Your task to perform on an android device: Show the shopping cart on ebay. Search for "apple airpods" on ebay, select the first entry, and add it to the cart. Image 0: 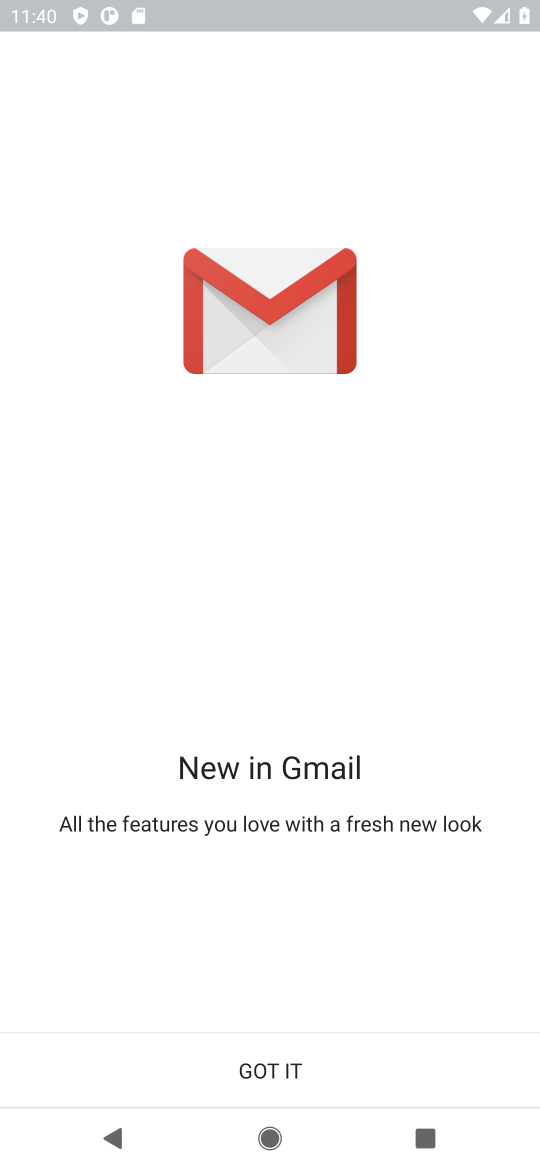
Step 0: press home button
Your task to perform on an android device: Show the shopping cart on ebay. Search for "apple airpods" on ebay, select the first entry, and add it to the cart. Image 1: 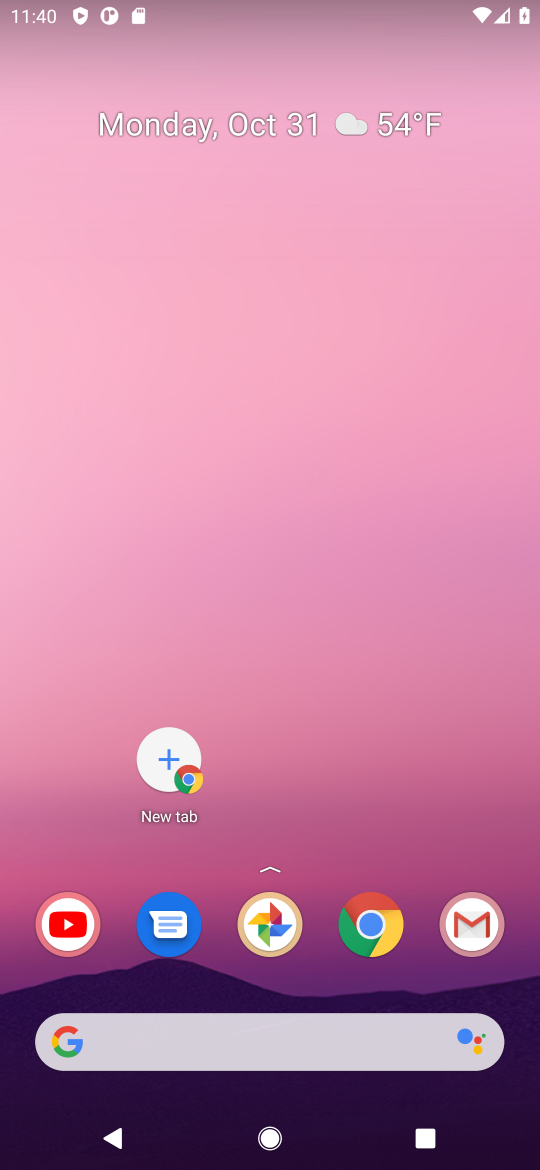
Step 1: click (373, 924)
Your task to perform on an android device: Show the shopping cart on ebay. Search for "apple airpods" on ebay, select the first entry, and add it to the cart. Image 2: 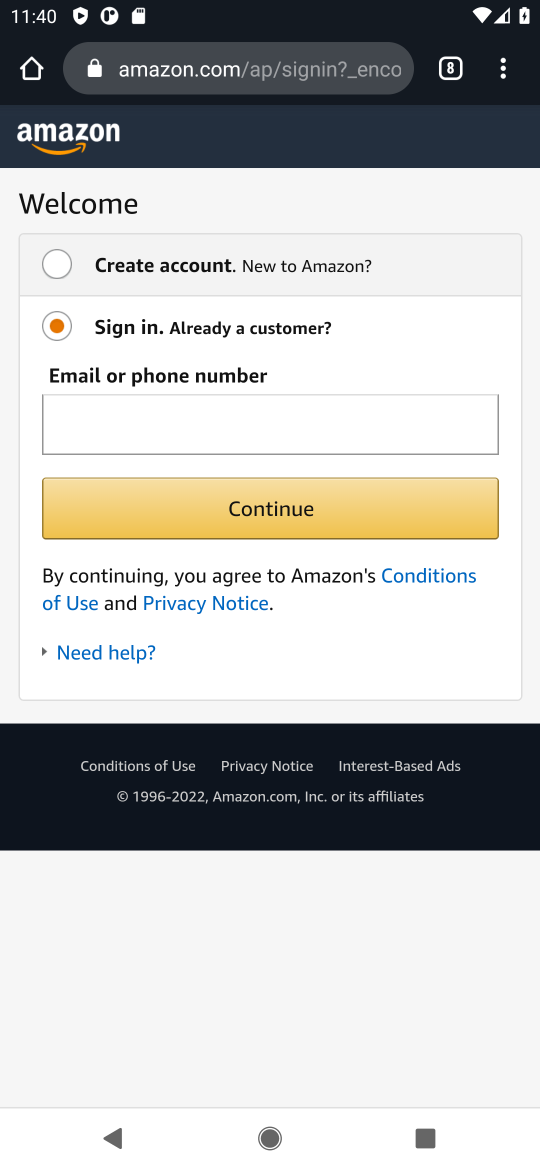
Step 2: click (163, 65)
Your task to perform on an android device: Show the shopping cart on ebay. Search for "apple airpods" on ebay, select the first entry, and add it to the cart. Image 3: 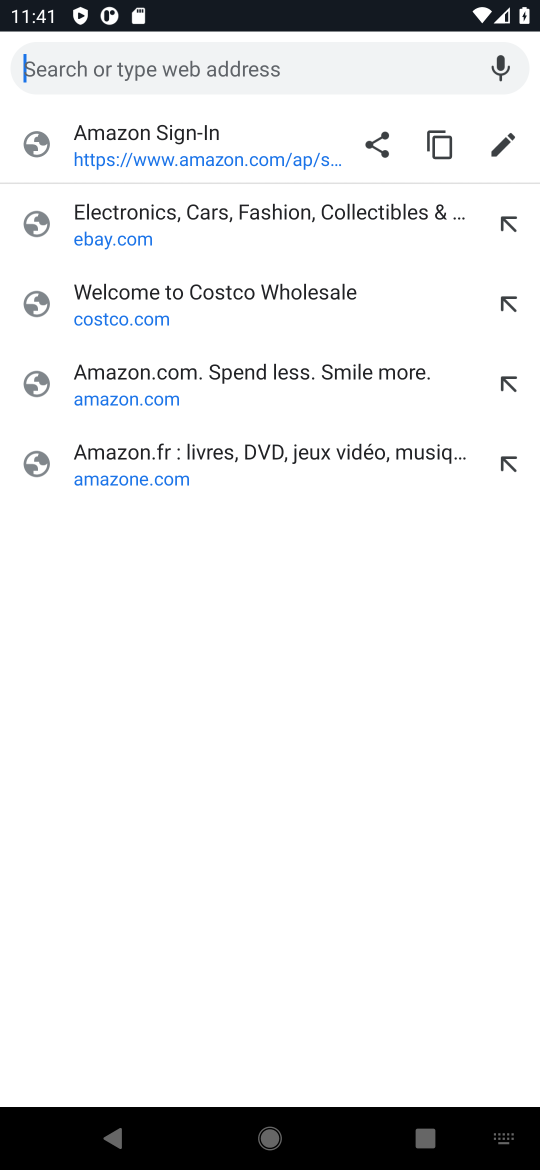
Step 3: type "ebay"
Your task to perform on an android device: Show the shopping cart on ebay. Search for "apple airpods" on ebay, select the first entry, and add it to the cart. Image 4: 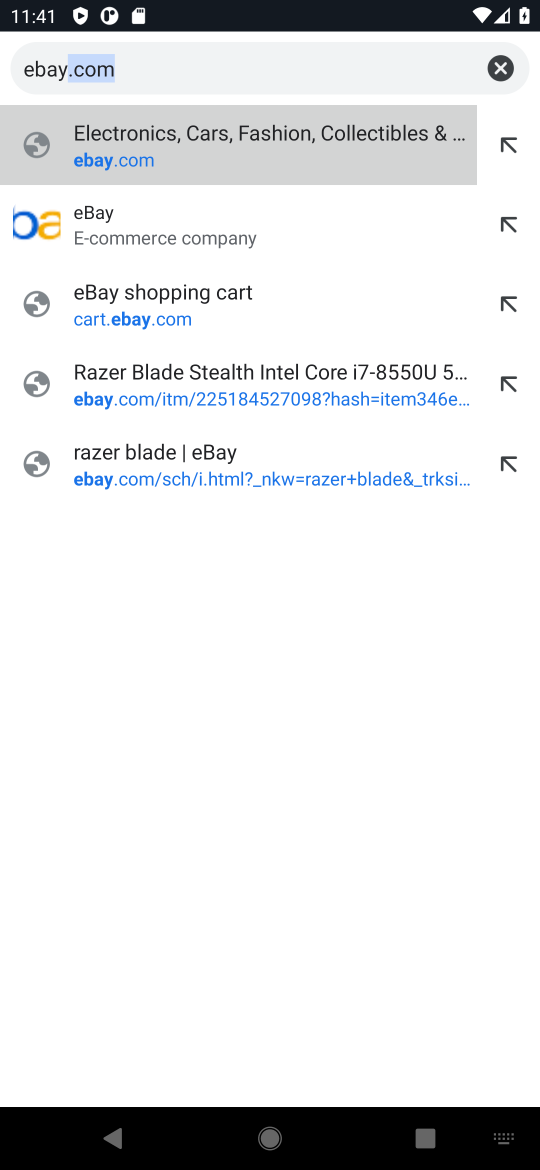
Step 4: type ""
Your task to perform on an android device: Show the shopping cart on ebay. Search for "apple airpods" on ebay, select the first entry, and add it to the cart. Image 5: 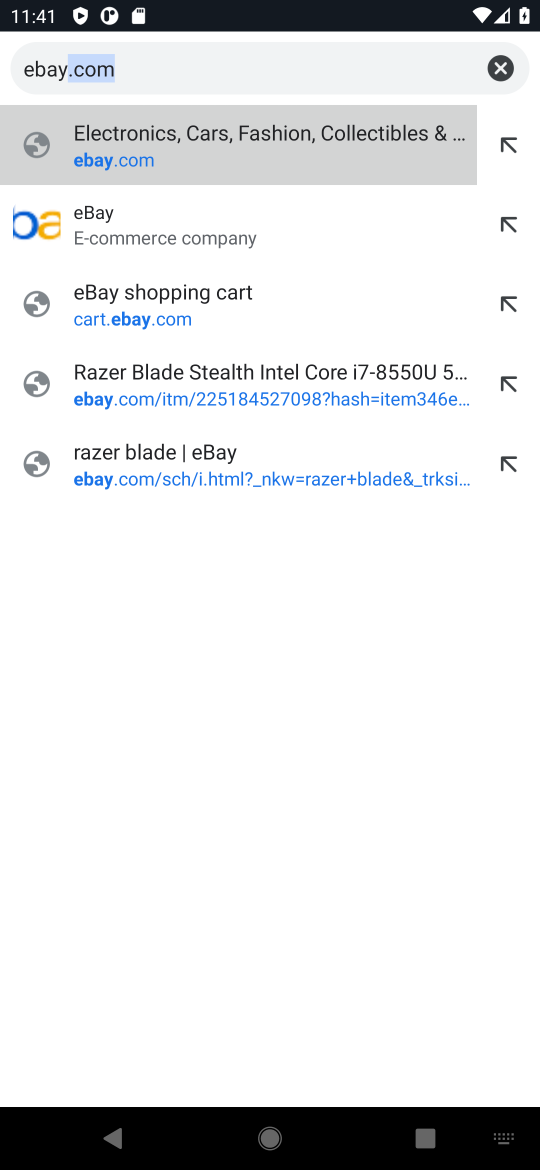
Step 5: click (142, 136)
Your task to perform on an android device: Show the shopping cart on ebay. Search for "apple airpods" on ebay, select the first entry, and add it to the cart. Image 6: 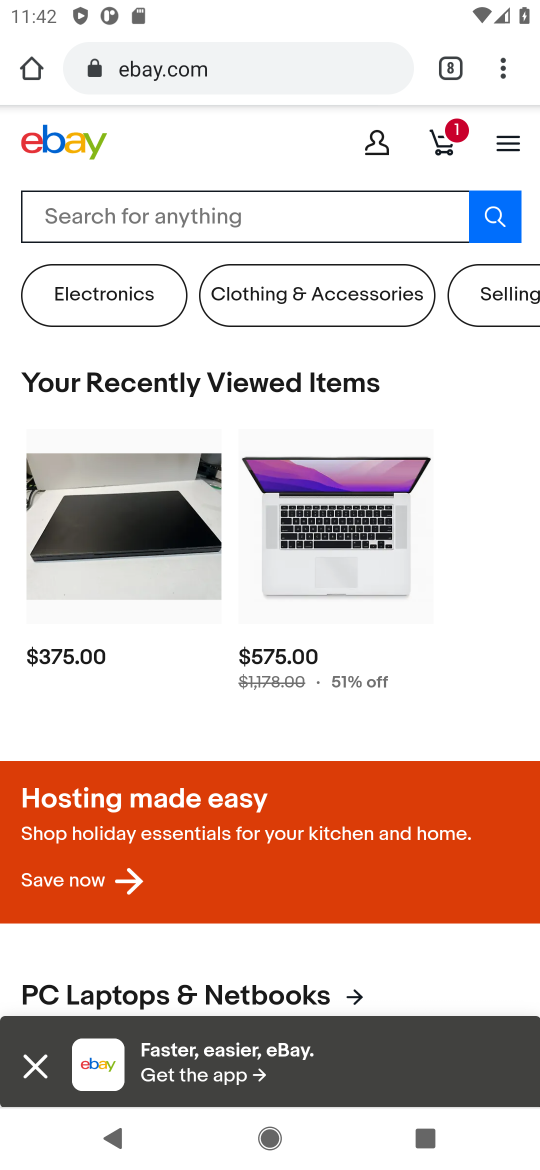
Step 6: click (136, 209)
Your task to perform on an android device: Show the shopping cart on ebay. Search for "apple airpods" on ebay, select the first entry, and add it to the cart. Image 7: 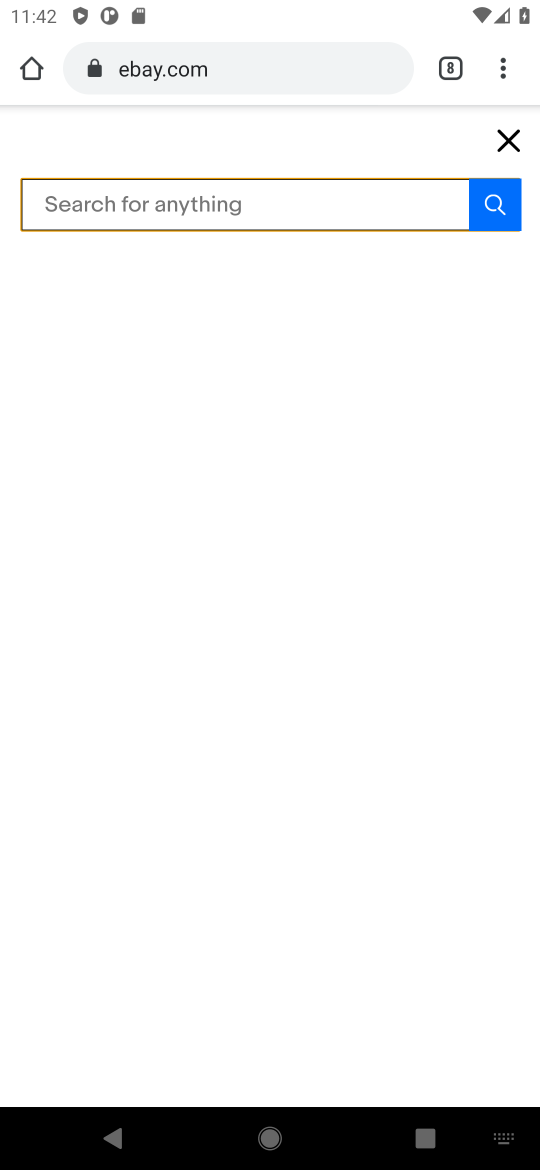
Step 7: type "apple airpods"
Your task to perform on an android device: Show the shopping cart on ebay. Search for "apple airpods" on ebay, select the first entry, and add it to the cart. Image 8: 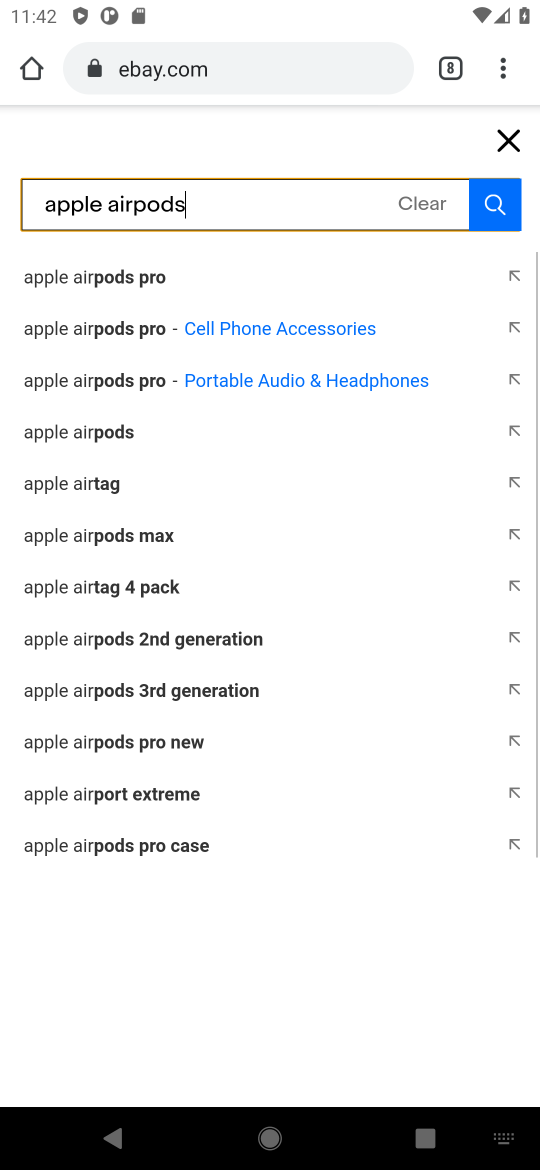
Step 8: type ""
Your task to perform on an android device: Show the shopping cart on ebay. Search for "apple airpods" on ebay, select the first entry, and add it to the cart. Image 9: 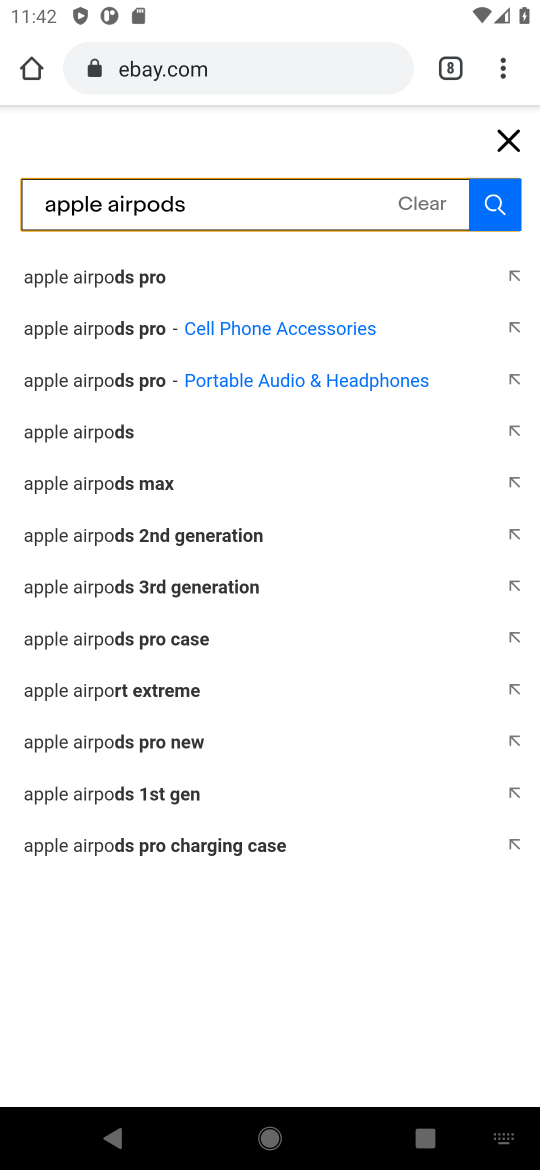
Step 9: click (91, 276)
Your task to perform on an android device: Show the shopping cart on ebay. Search for "apple airpods" on ebay, select the first entry, and add it to the cart. Image 10: 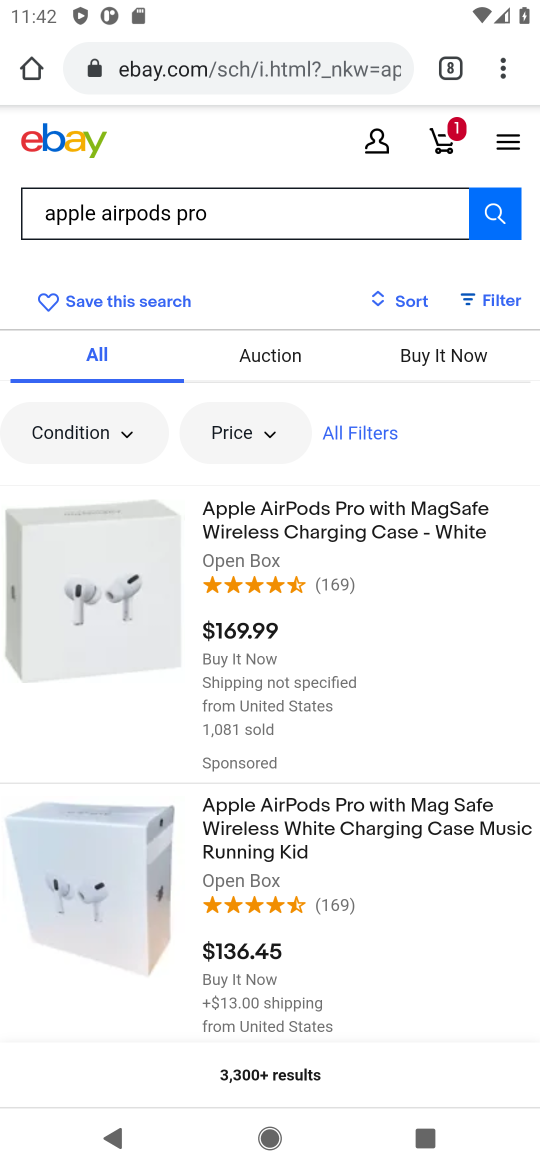
Step 10: click (90, 583)
Your task to perform on an android device: Show the shopping cart on ebay. Search for "apple airpods" on ebay, select the first entry, and add it to the cart. Image 11: 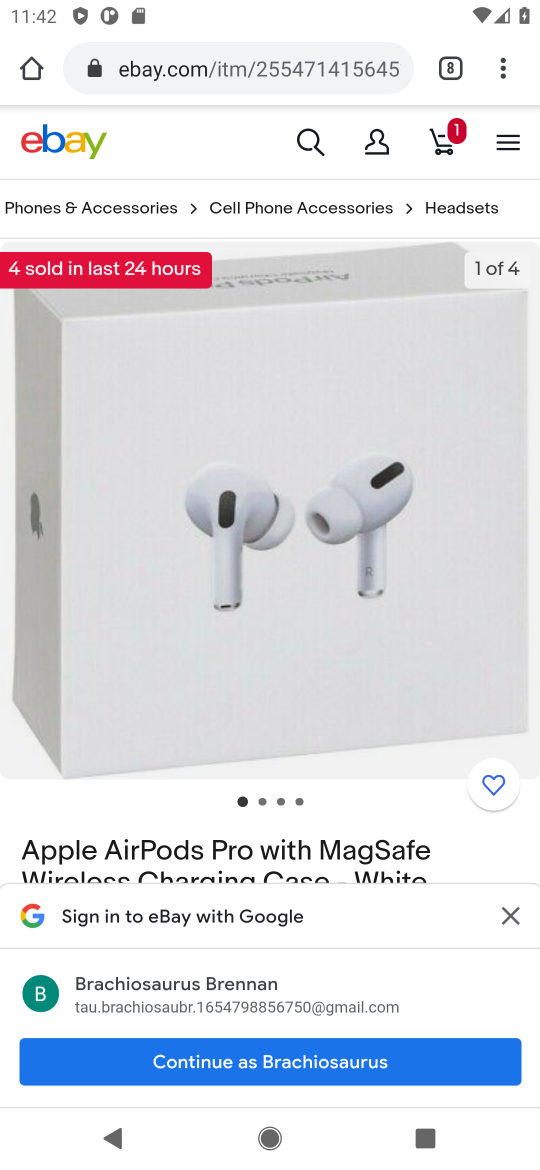
Step 11: drag from (244, 644) to (278, 245)
Your task to perform on an android device: Show the shopping cart on ebay. Search for "apple airpods" on ebay, select the first entry, and add it to the cart. Image 12: 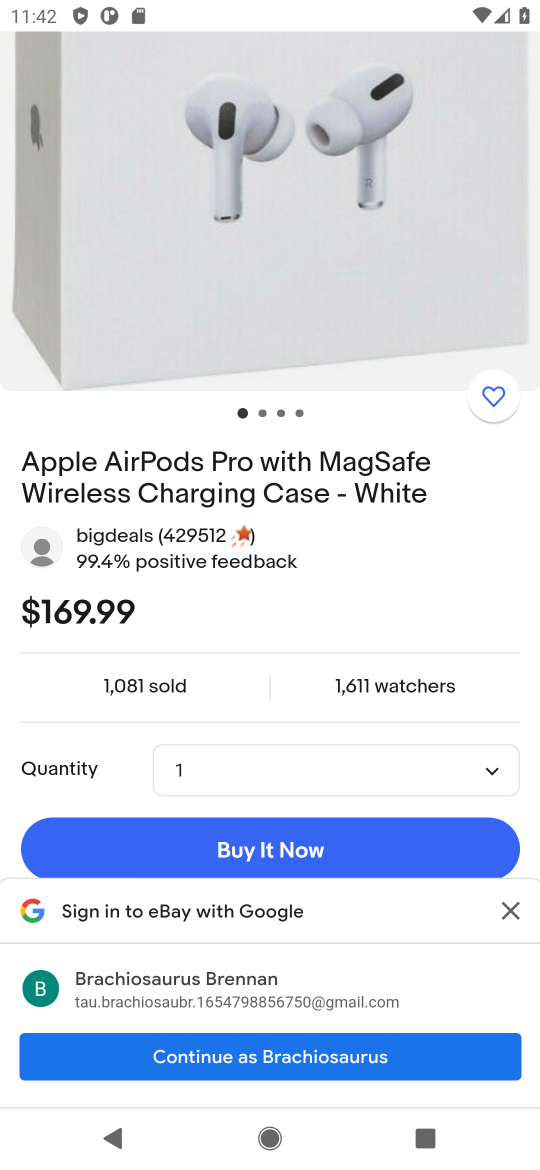
Step 12: drag from (286, 535) to (281, 250)
Your task to perform on an android device: Show the shopping cart on ebay. Search for "apple airpods" on ebay, select the first entry, and add it to the cart. Image 13: 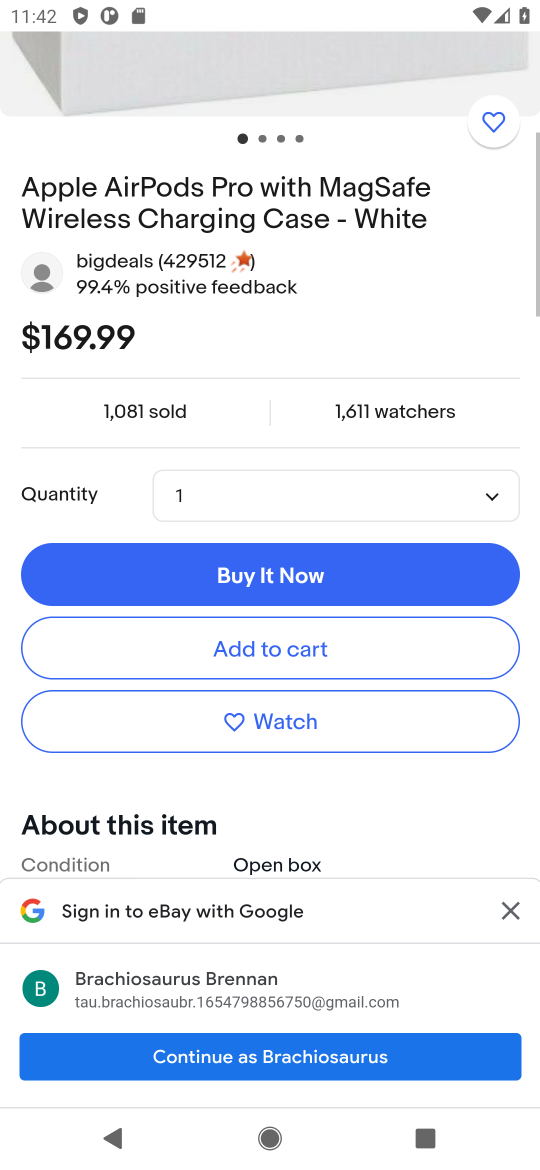
Step 13: drag from (276, 834) to (291, 574)
Your task to perform on an android device: Show the shopping cart on ebay. Search for "apple airpods" on ebay, select the first entry, and add it to the cart. Image 14: 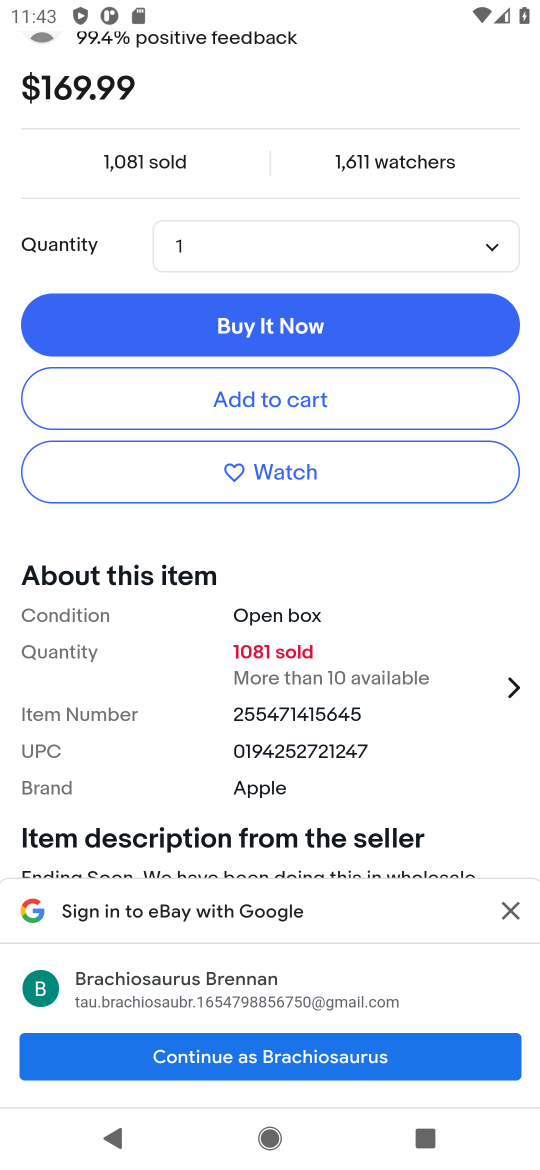
Step 14: click (511, 908)
Your task to perform on an android device: Show the shopping cart on ebay. Search for "apple airpods" on ebay, select the first entry, and add it to the cart. Image 15: 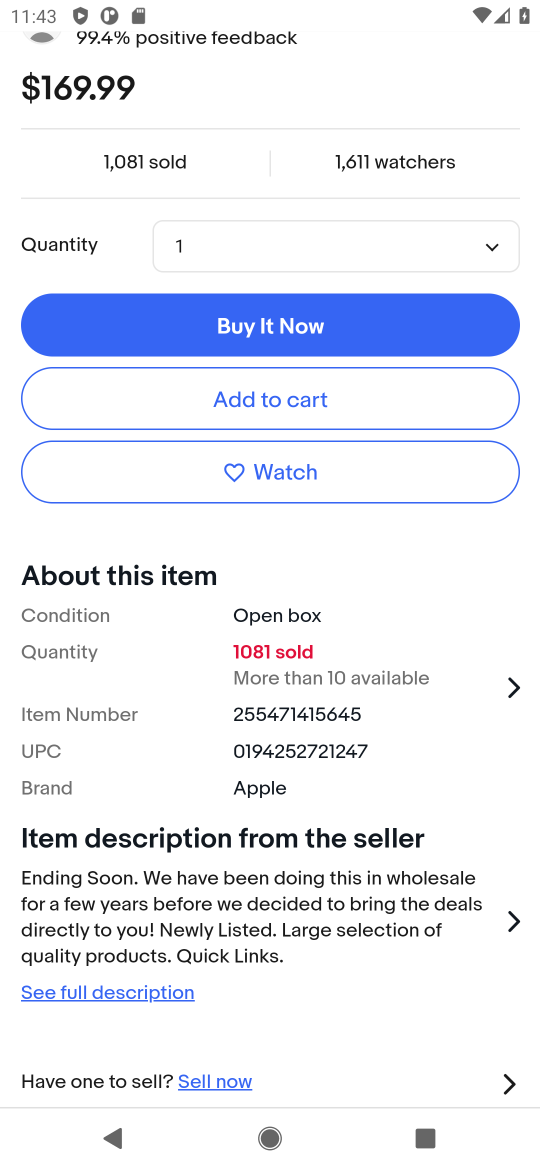
Step 15: click (185, 392)
Your task to perform on an android device: Show the shopping cart on ebay. Search for "apple airpods" on ebay, select the first entry, and add it to the cart. Image 16: 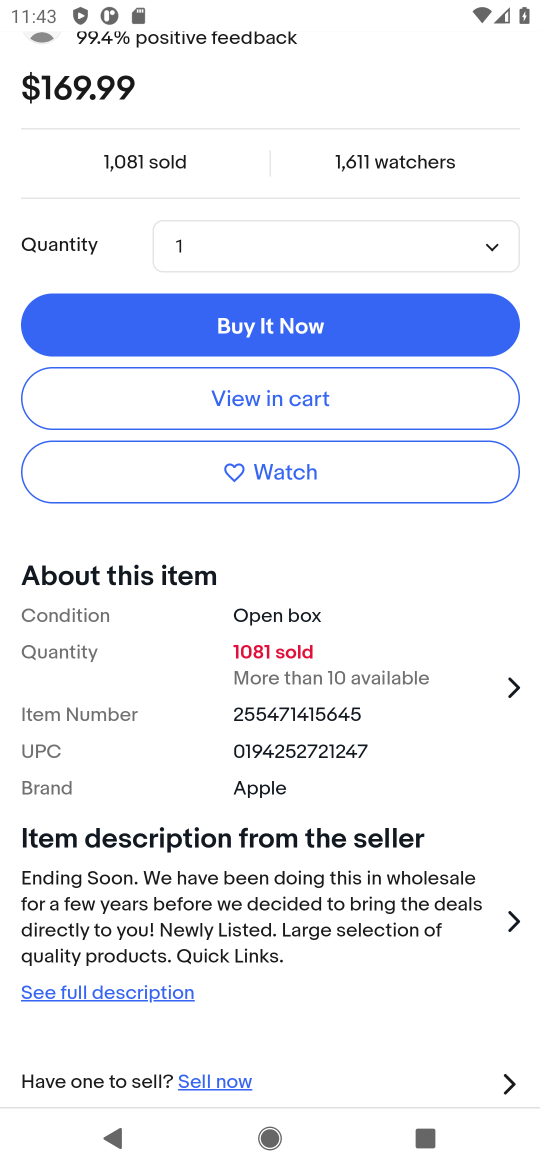
Step 16: click (260, 387)
Your task to perform on an android device: Show the shopping cart on ebay. Search for "apple airpods" on ebay, select the first entry, and add it to the cart. Image 17: 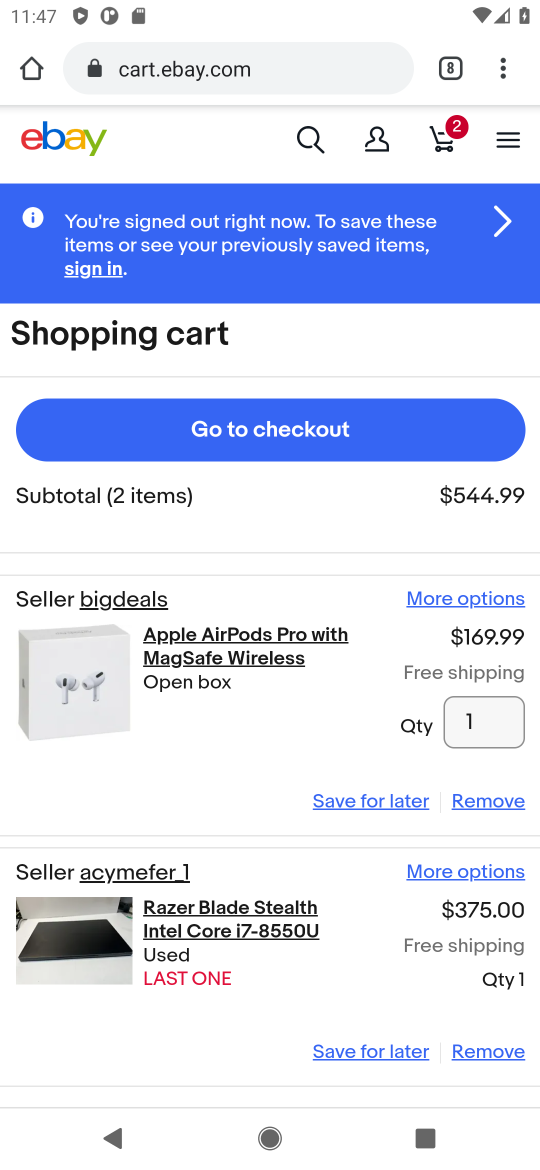
Step 17: task complete